Your task to perform on an android device: check storage Image 0: 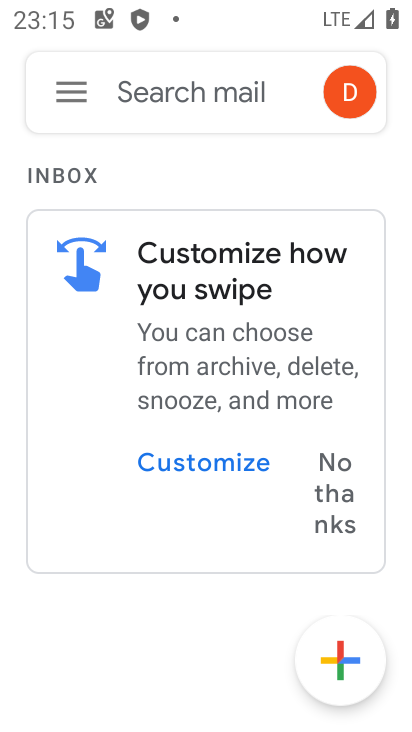
Step 0: press home button
Your task to perform on an android device: check storage Image 1: 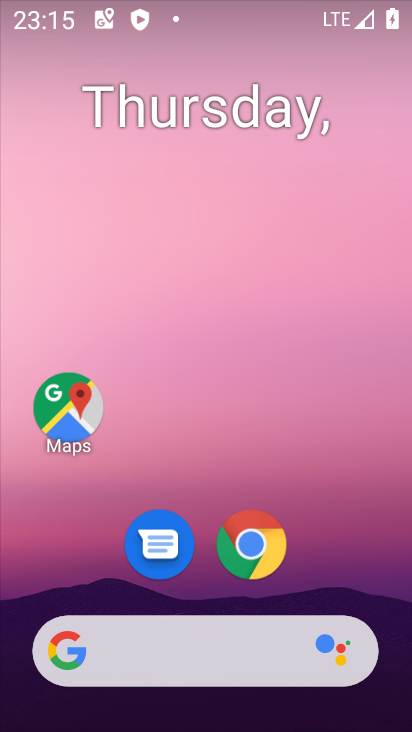
Step 1: drag from (184, 465) to (218, 125)
Your task to perform on an android device: check storage Image 2: 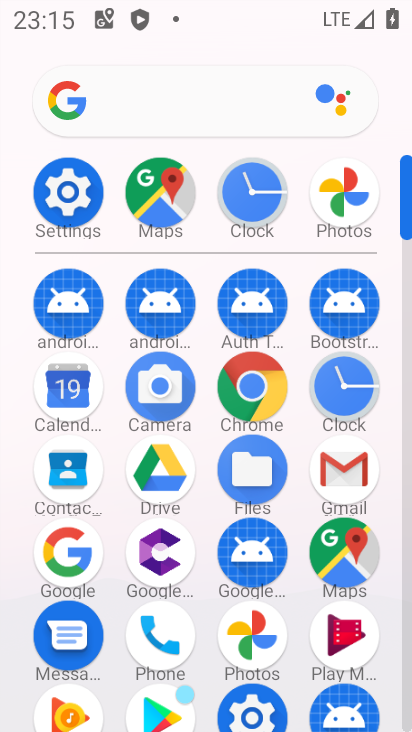
Step 2: click (90, 163)
Your task to perform on an android device: check storage Image 3: 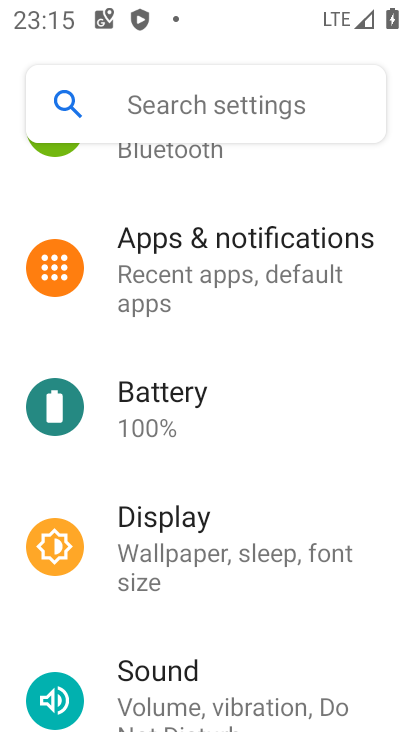
Step 3: drag from (183, 679) to (188, 396)
Your task to perform on an android device: check storage Image 4: 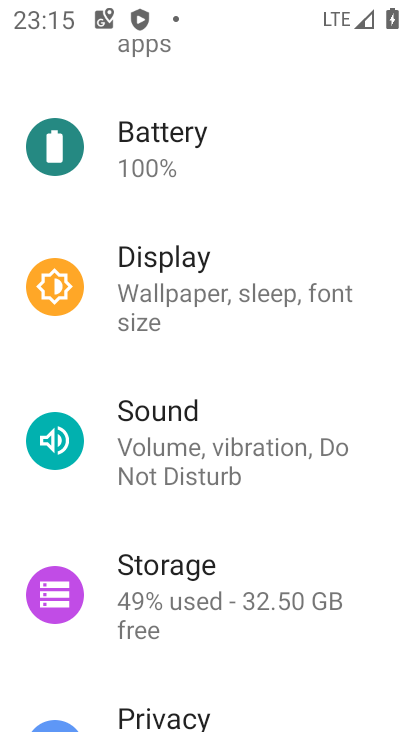
Step 4: click (169, 631)
Your task to perform on an android device: check storage Image 5: 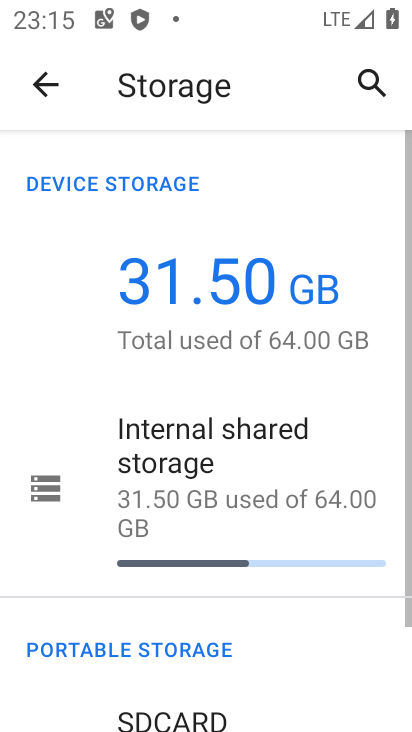
Step 5: task complete